Your task to perform on an android device: turn off smart reply in the gmail app Image 0: 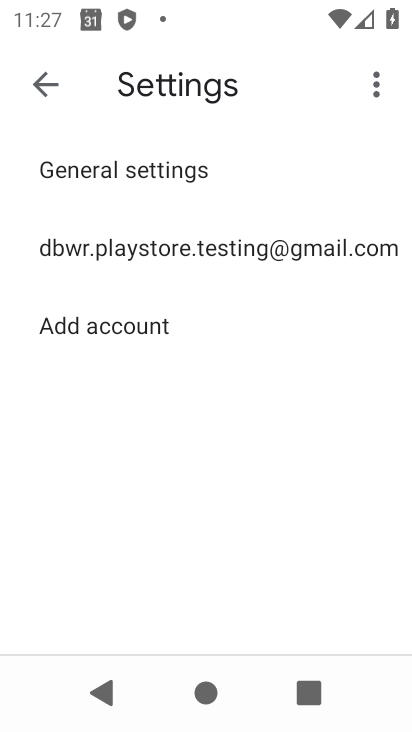
Step 0: press back button
Your task to perform on an android device: turn off smart reply in the gmail app Image 1: 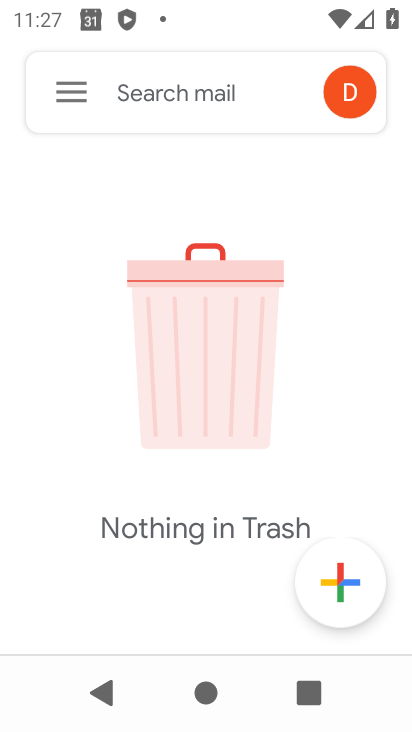
Step 1: click (75, 88)
Your task to perform on an android device: turn off smart reply in the gmail app Image 2: 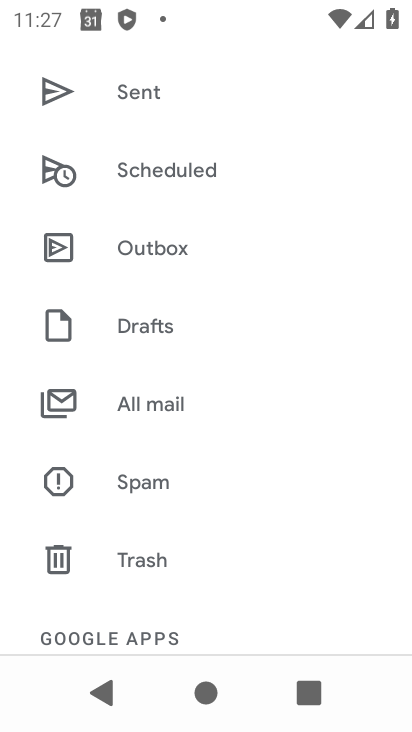
Step 2: drag from (231, 604) to (292, 57)
Your task to perform on an android device: turn off smart reply in the gmail app Image 3: 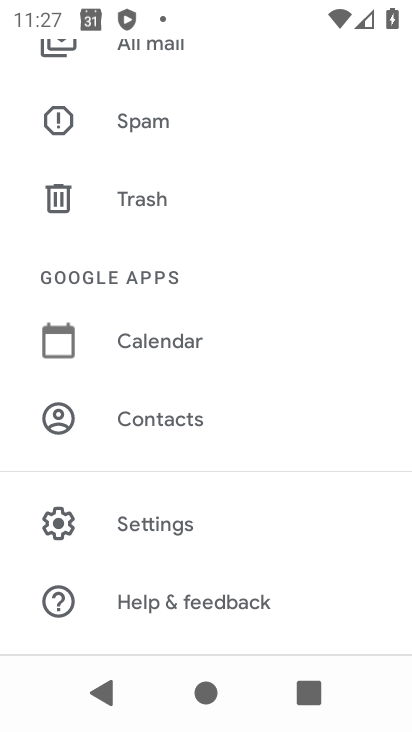
Step 3: click (150, 524)
Your task to perform on an android device: turn off smart reply in the gmail app Image 4: 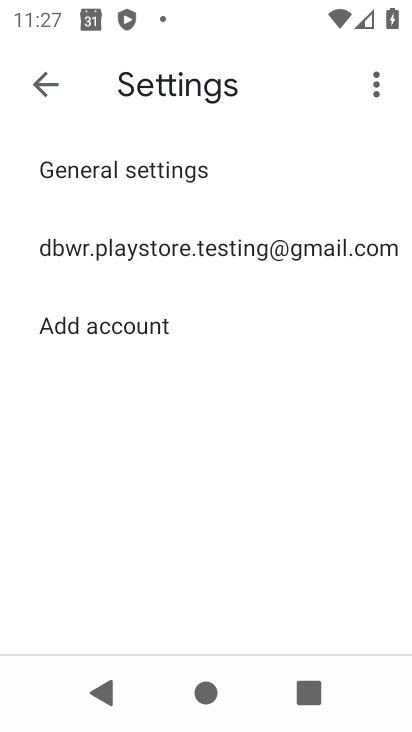
Step 4: click (159, 246)
Your task to perform on an android device: turn off smart reply in the gmail app Image 5: 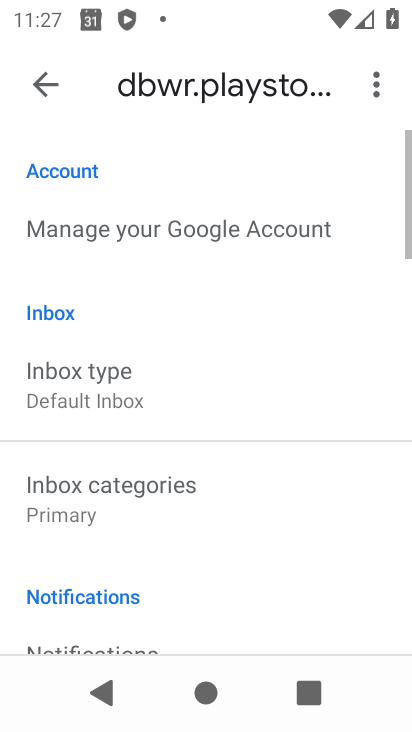
Step 5: drag from (156, 577) to (240, 38)
Your task to perform on an android device: turn off smart reply in the gmail app Image 6: 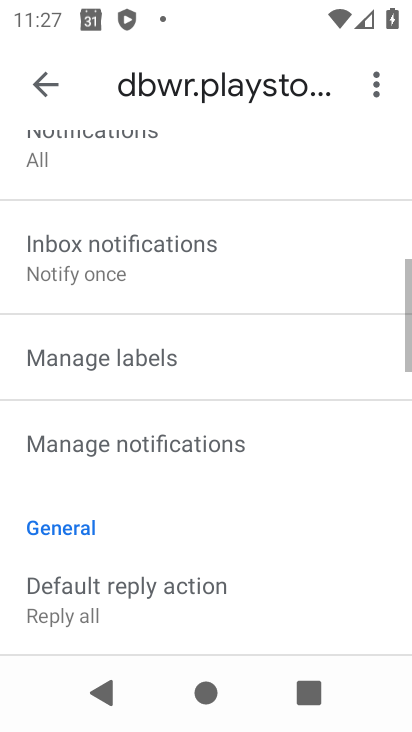
Step 6: drag from (181, 574) to (257, 63)
Your task to perform on an android device: turn off smart reply in the gmail app Image 7: 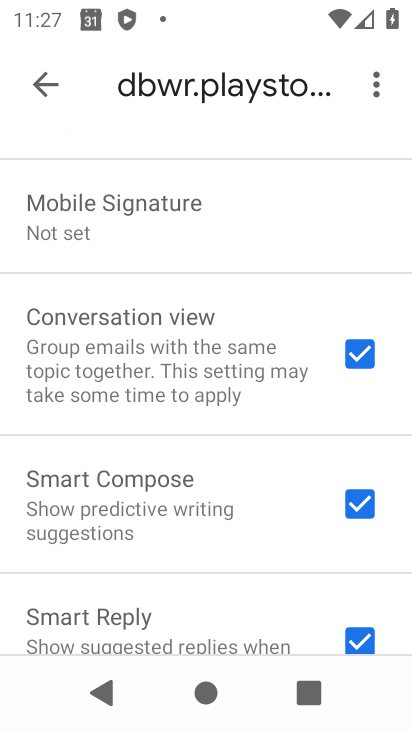
Step 7: click (364, 643)
Your task to perform on an android device: turn off smart reply in the gmail app Image 8: 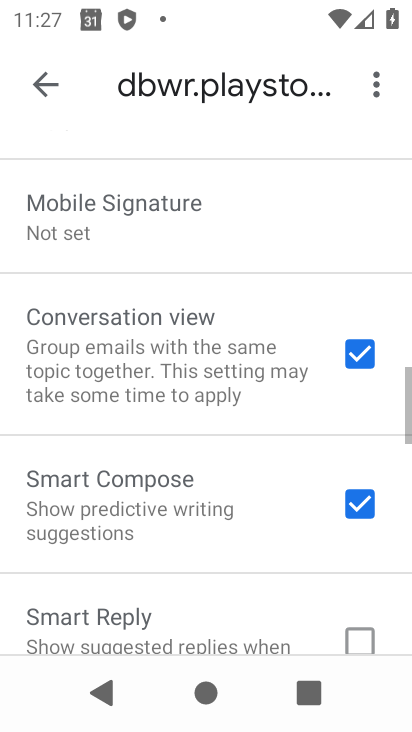
Step 8: task complete